Your task to perform on an android device: turn pop-ups off in chrome Image 0: 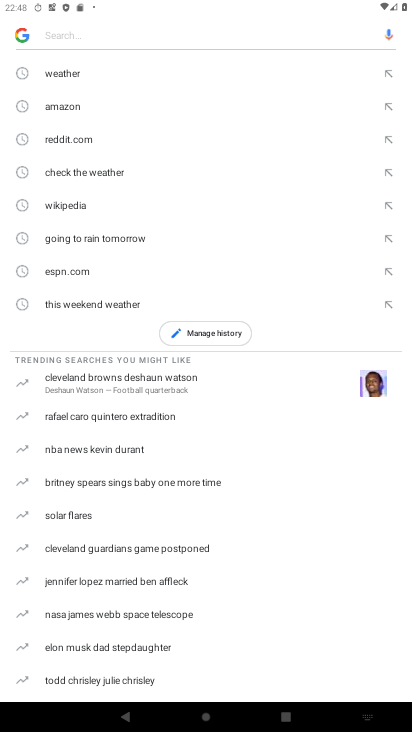
Step 0: press home button
Your task to perform on an android device: turn pop-ups off in chrome Image 1: 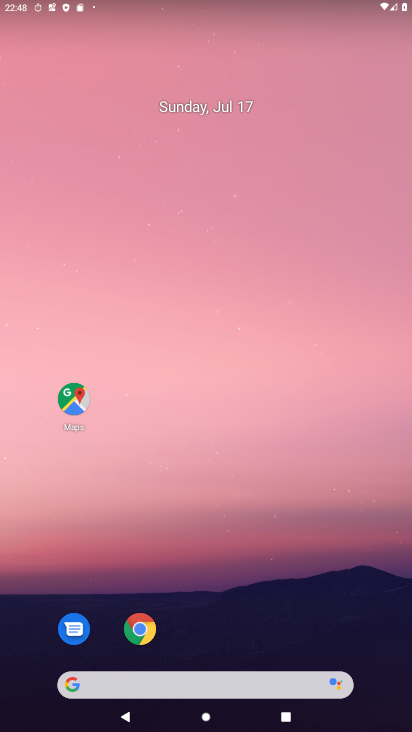
Step 1: click (140, 632)
Your task to perform on an android device: turn pop-ups off in chrome Image 2: 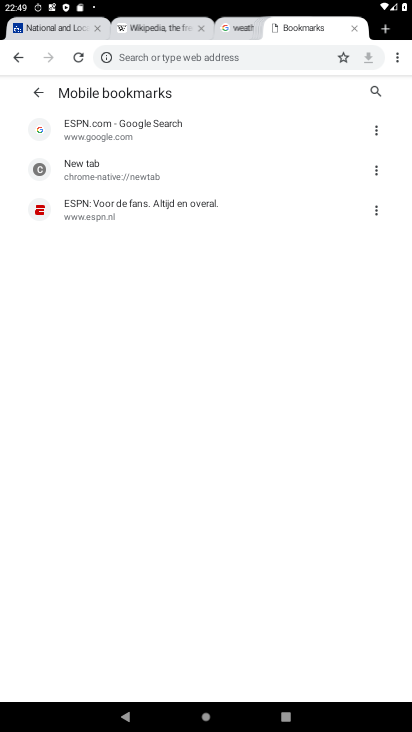
Step 2: click (398, 61)
Your task to perform on an android device: turn pop-ups off in chrome Image 3: 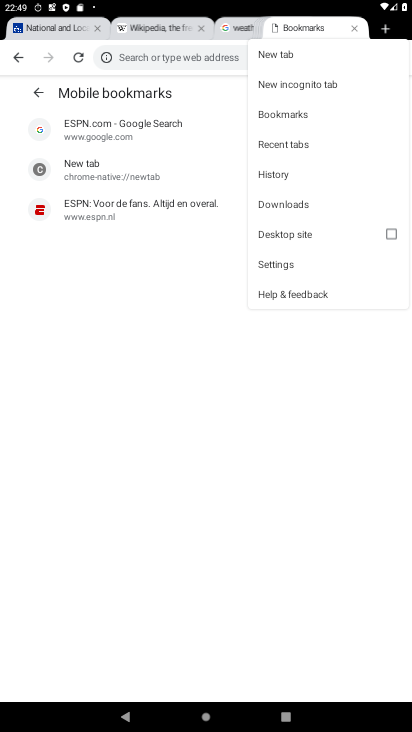
Step 3: click (288, 261)
Your task to perform on an android device: turn pop-ups off in chrome Image 4: 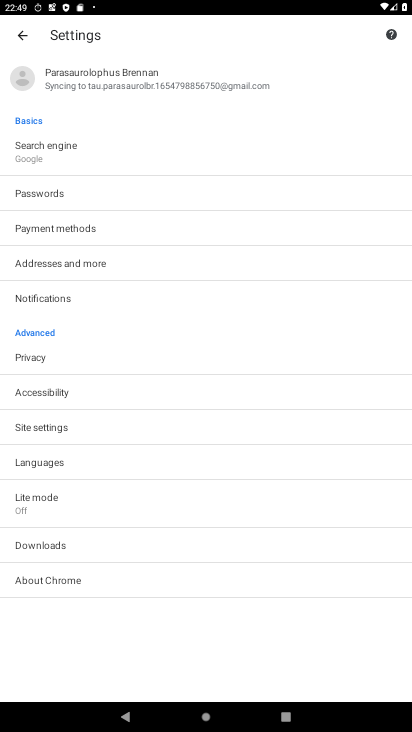
Step 4: click (49, 423)
Your task to perform on an android device: turn pop-ups off in chrome Image 5: 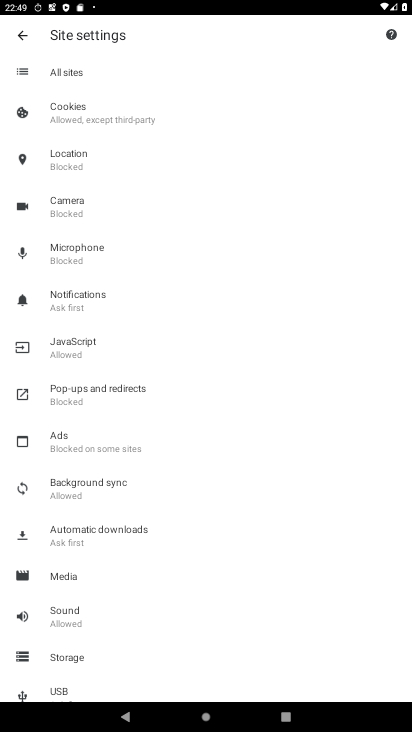
Step 5: click (61, 386)
Your task to perform on an android device: turn pop-ups off in chrome Image 6: 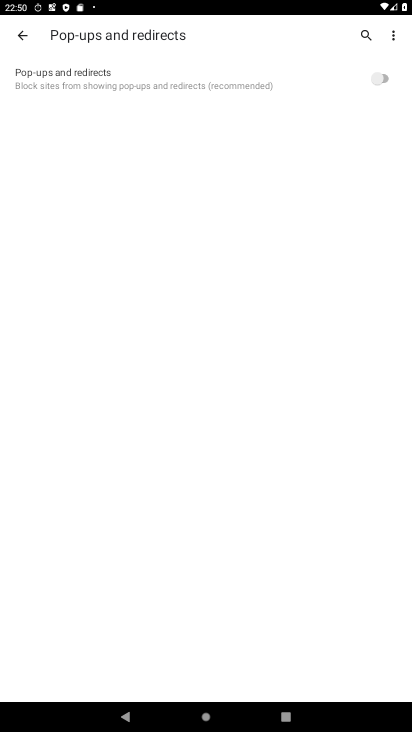
Step 6: task complete